Your task to perform on an android device: check the backup settings in the google photos Image 0: 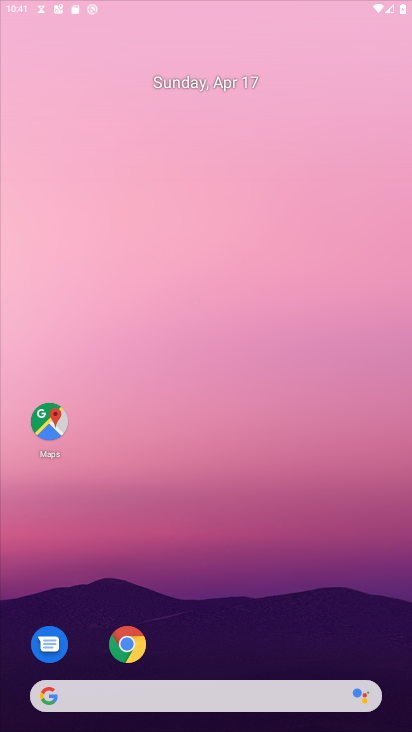
Step 0: click (268, 251)
Your task to perform on an android device: check the backup settings in the google photos Image 1: 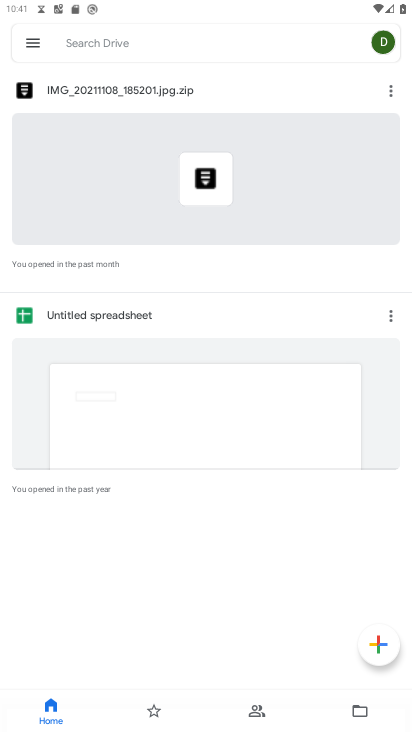
Step 1: press home button
Your task to perform on an android device: check the backup settings in the google photos Image 2: 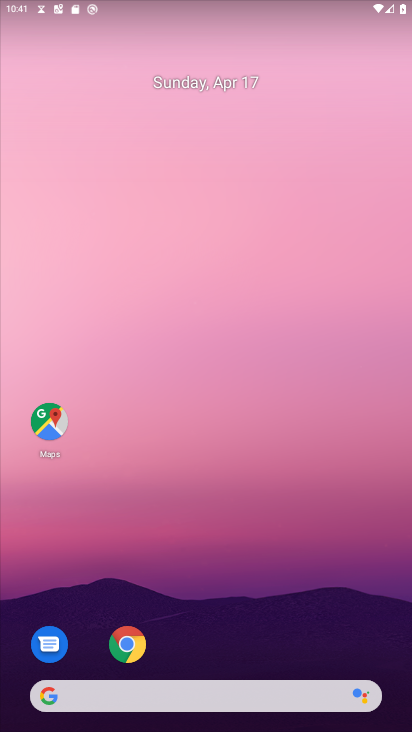
Step 2: drag from (180, 598) to (309, 30)
Your task to perform on an android device: check the backup settings in the google photos Image 3: 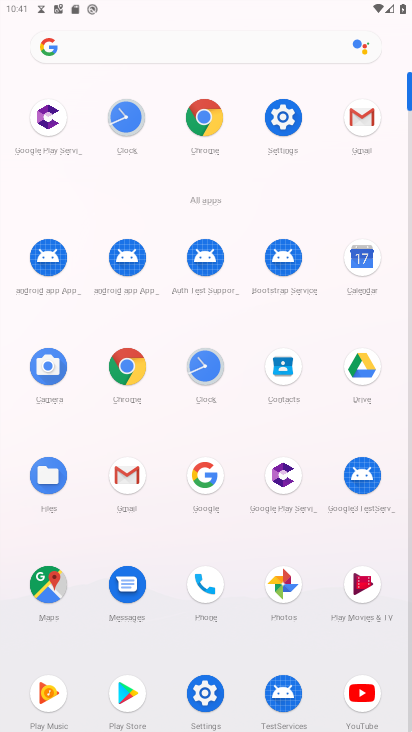
Step 3: click (285, 590)
Your task to perform on an android device: check the backup settings in the google photos Image 4: 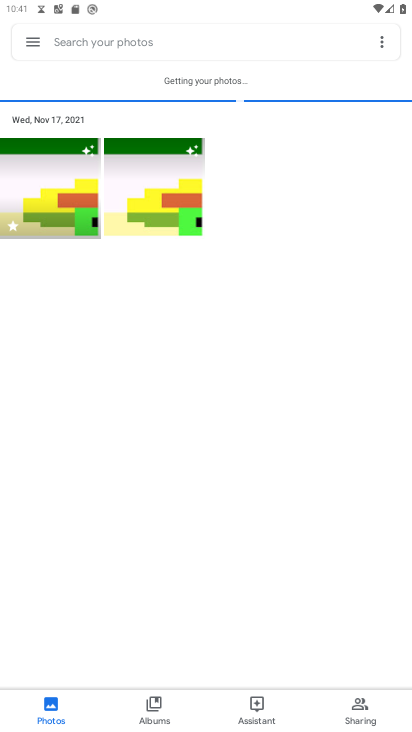
Step 4: click (35, 40)
Your task to perform on an android device: check the backup settings in the google photos Image 5: 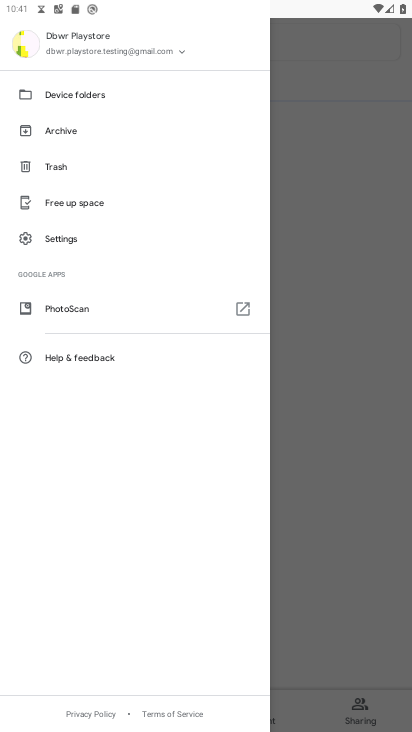
Step 5: click (55, 236)
Your task to perform on an android device: check the backup settings in the google photos Image 6: 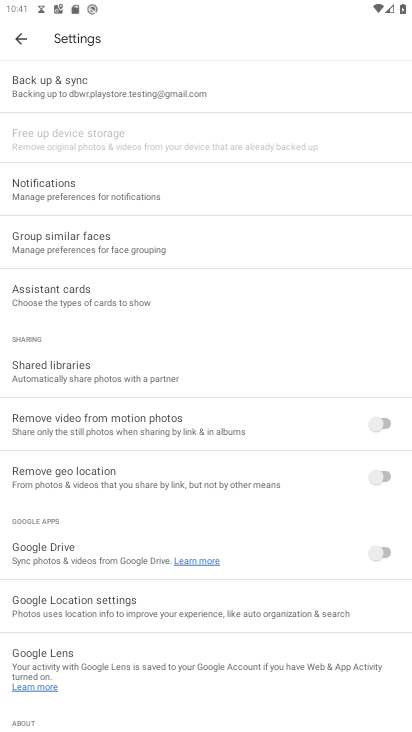
Step 6: click (120, 84)
Your task to perform on an android device: check the backup settings in the google photos Image 7: 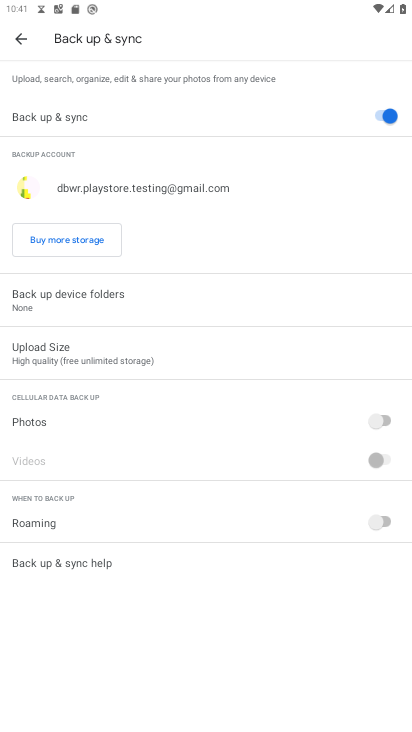
Step 7: task complete